Your task to perform on an android device: Search for good Korean restaurants Image 0: 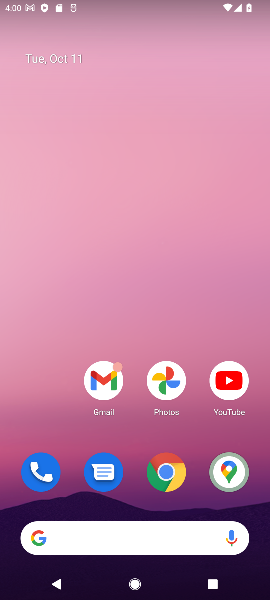
Step 0: click (126, 535)
Your task to perform on an android device: Search for good Korean restaurants Image 1: 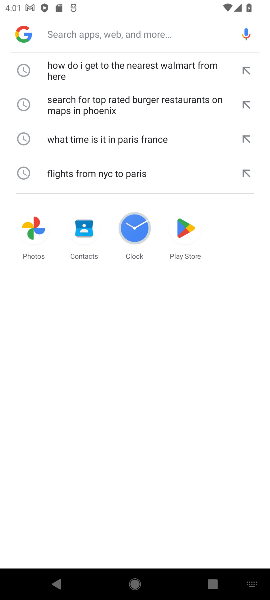
Step 1: type "Search for good Korean restaurants"
Your task to perform on an android device: Search for good Korean restaurants Image 2: 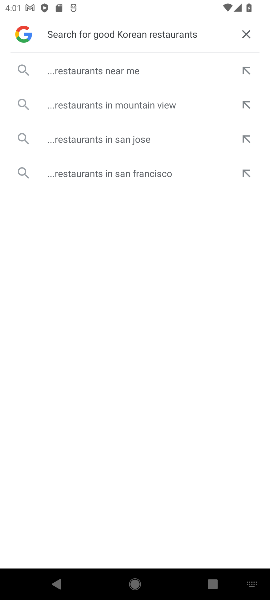
Step 2: click (109, 71)
Your task to perform on an android device: Search for good Korean restaurants Image 3: 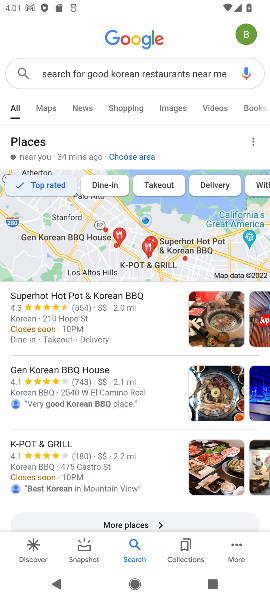
Step 3: task complete